Your task to perform on an android device: turn off smart reply in the gmail app Image 0: 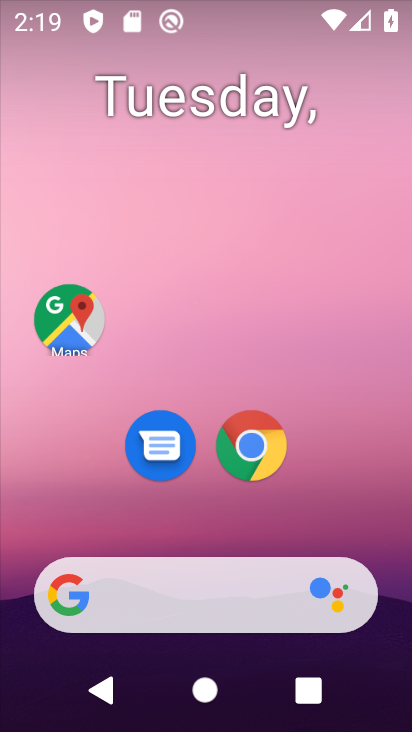
Step 0: drag from (367, 494) to (359, 24)
Your task to perform on an android device: turn off smart reply in the gmail app Image 1: 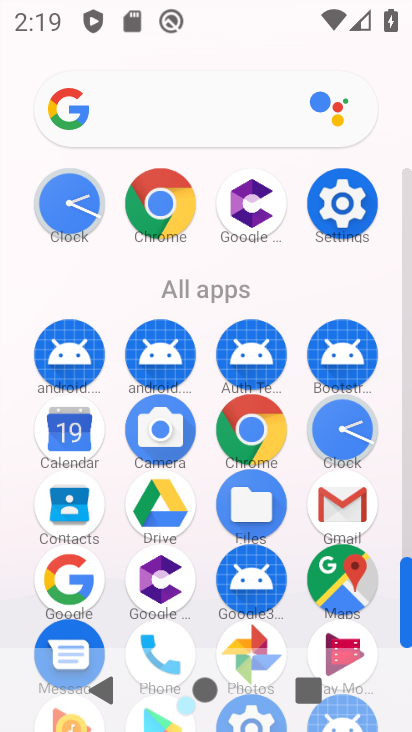
Step 1: click (357, 500)
Your task to perform on an android device: turn off smart reply in the gmail app Image 2: 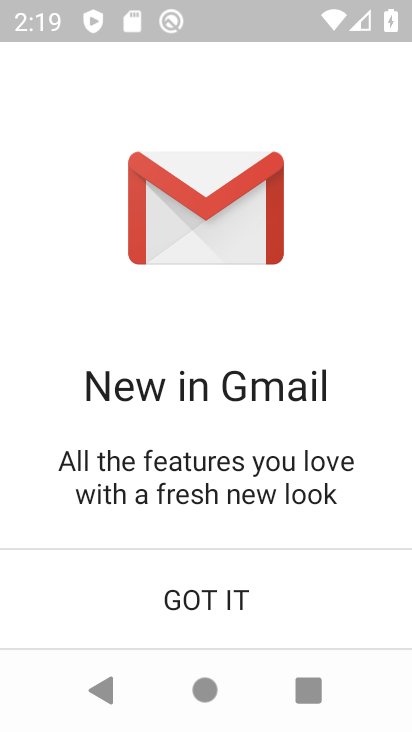
Step 2: click (169, 609)
Your task to perform on an android device: turn off smart reply in the gmail app Image 3: 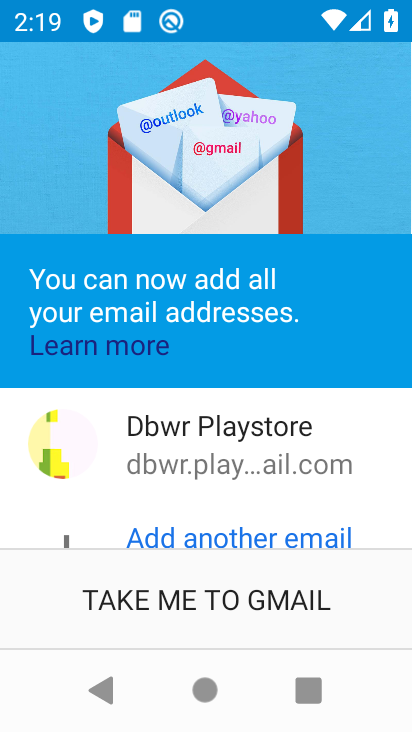
Step 3: click (169, 607)
Your task to perform on an android device: turn off smart reply in the gmail app Image 4: 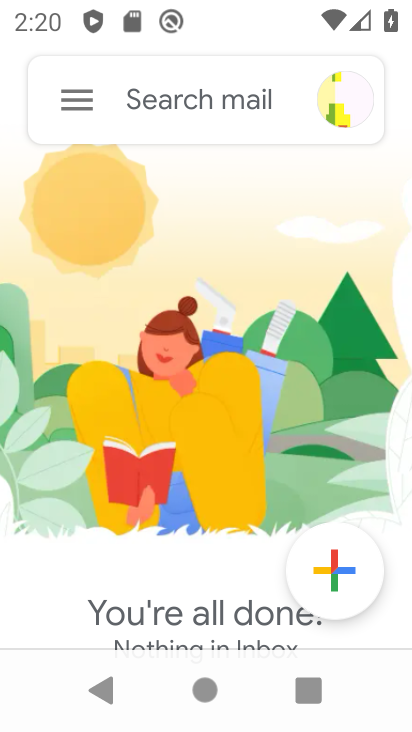
Step 4: click (49, 102)
Your task to perform on an android device: turn off smart reply in the gmail app Image 5: 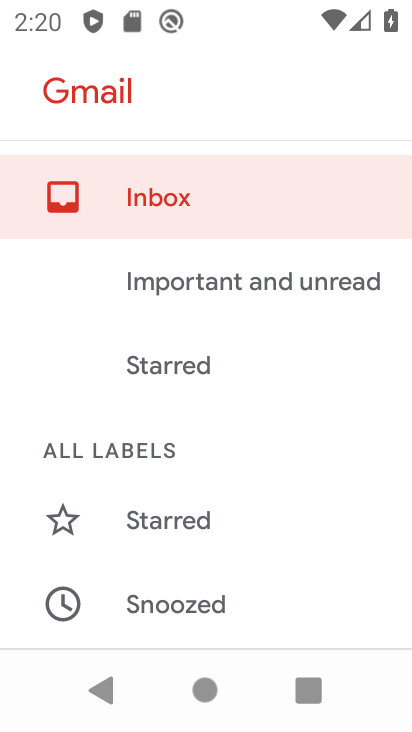
Step 5: drag from (225, 535) to (200, 213)
Your task to perform on an android device: turn off smart reply in the gmail app Image 6: 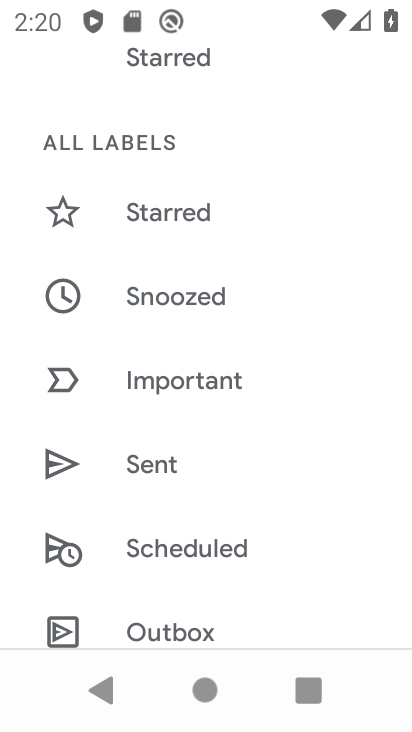
Step 6: drag from (228, 519) to (243, 258)
Your task to perform on an android device: turn off smart reply in the gmail app Image 7: 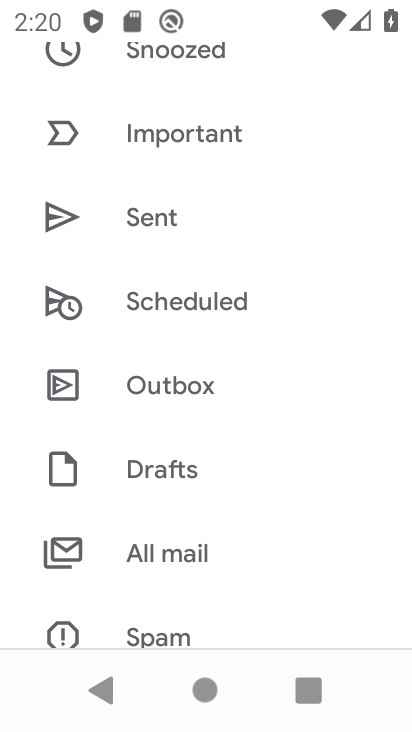
Step 7: drag from (239, 526) to (282, 183)
Your task to perform on an android device: turn off smart reply in the gmail app Image 8: 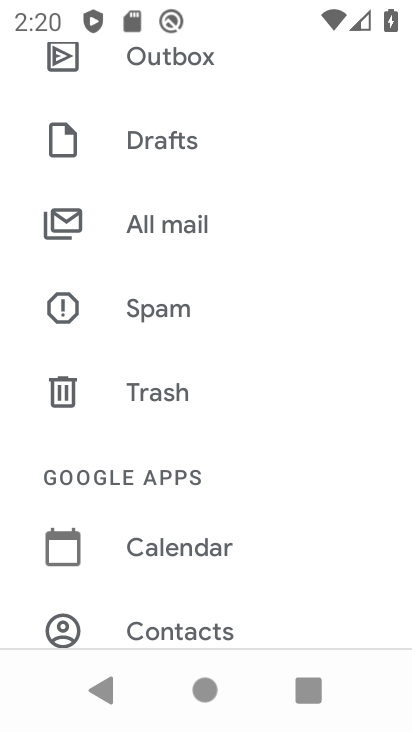
Step 8: drag from (250, 565) to (268, 231)
Your task to perform on an android device: turn off smart reply in the gmail app Image 9: 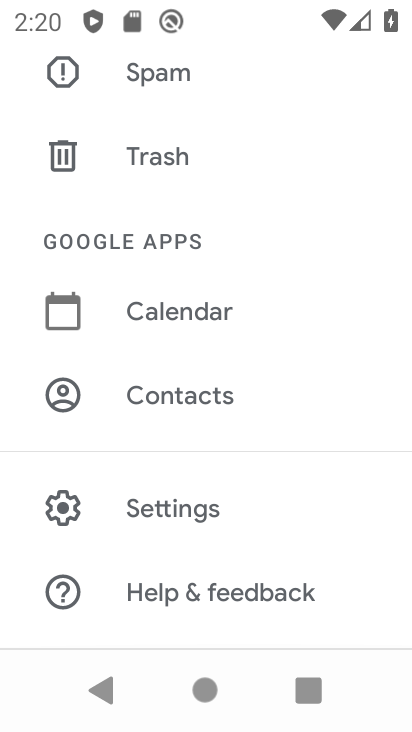
Step 9: click (192, 504)
Your task to perform on an android device: turn off smart reply in the gmail app Image 10: 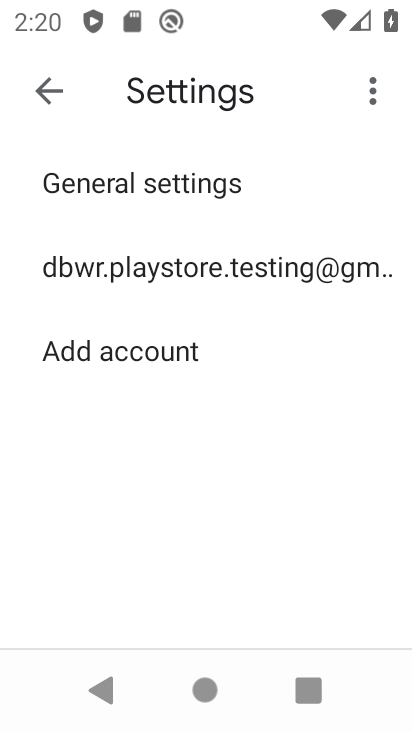
Step 10: click (137, 274)
Your task to perform on an android device: turn off smart reply in the gmail app Image 11: 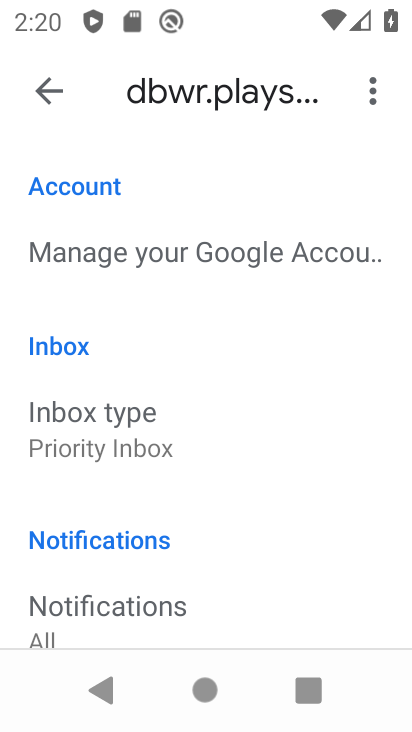
Step 11: drag from (198, 594) to (175, 233)
Your task to perform on an android device: turn off smart reply in the gmail app Image 12: 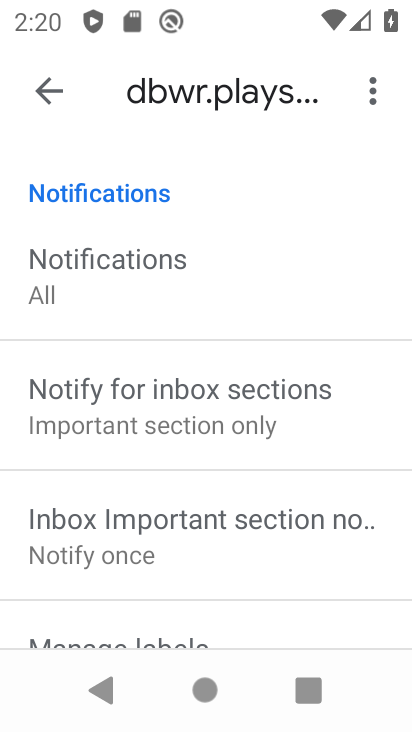
Step 12: drag from (154, 552) to (199, 174)
Your task to perform on an android device: turn off smart reply in the gmail app Image 13: 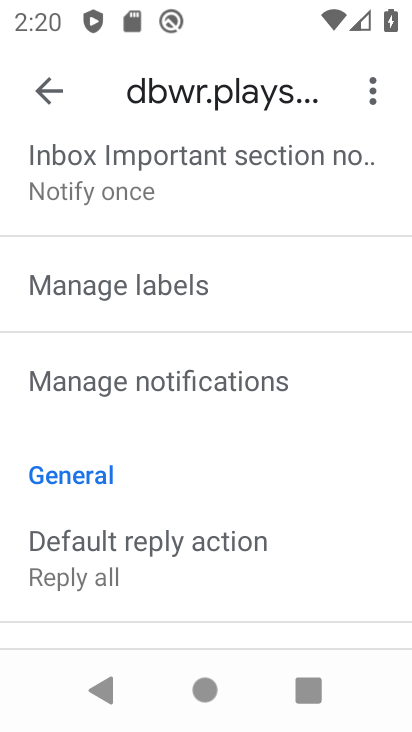
Step 13: drag from (178, 517) to (236, 173)
Your task to perform on an android device: turn off smart reply in the gmail app Image 14: 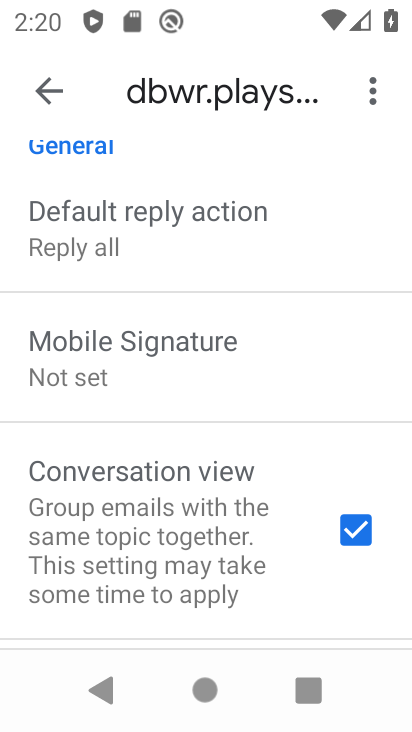
Step 14: drag from (189, 466) to (140, 116)
Your task to perform on an android device: turn off smart reply in the gmail app Image 15: 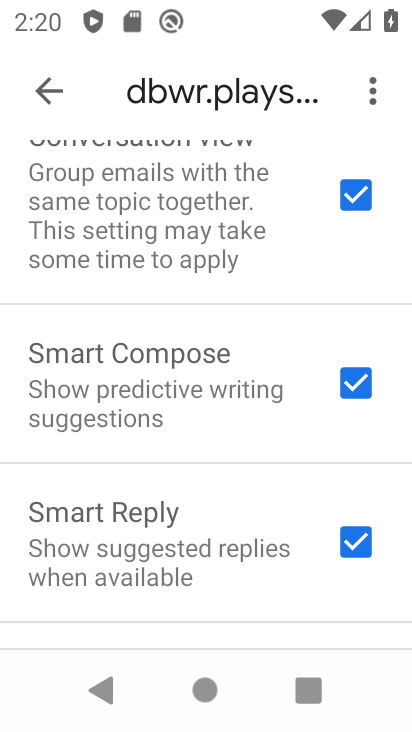
Step 15: drag from (135, 506) to (139, 185)
Your task to perform on an android device: turn off smart reply in the gmail app Image 16: 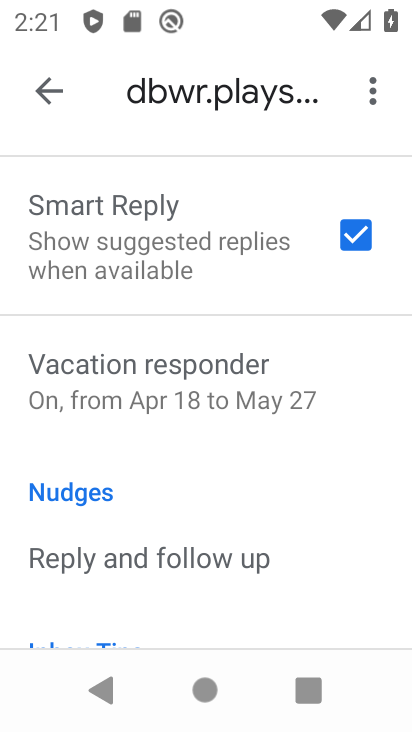
Step 16: click (363, 237)
Your task to perform on an android device: turn off smart reply in the gmail app Image 17: 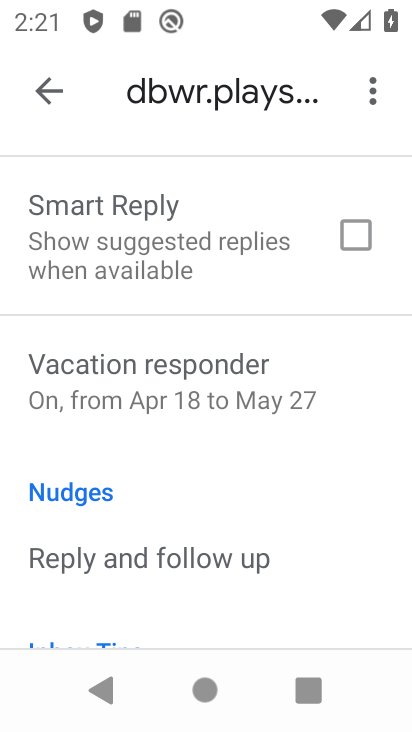
Step 17: task complete